Your task to perform on an android device: turn vacation reply on in the gmail app Image 0: 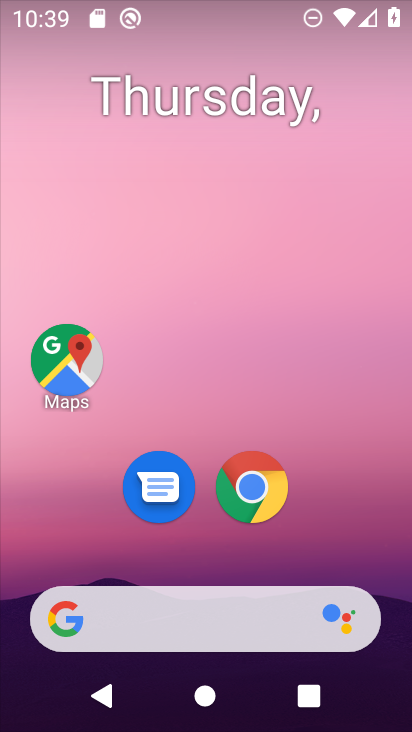
Step 0: drag from (313, 576) to (174, 195)
Your task to perform on an android device: turn vacation reply on in the gmail app Image 1: 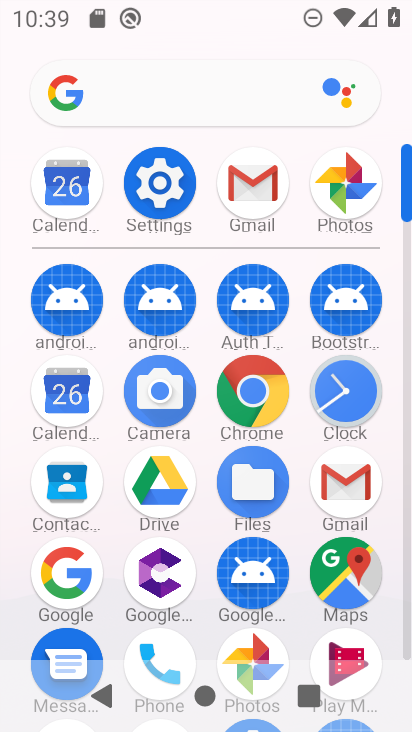
Step 1: click (256, 163)
Your task to perform on an android device: turn vacation reply on in the gmail app Image 2: 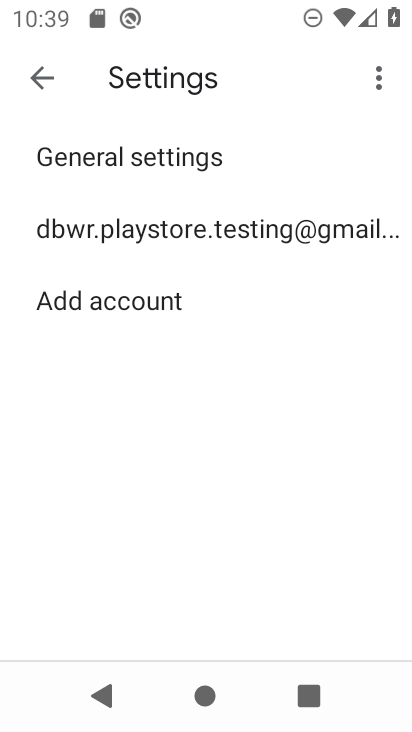
Step 2: click (42, 77)
Your task to perform on an android device: turn vacation reply on in the gmail app Image 3: 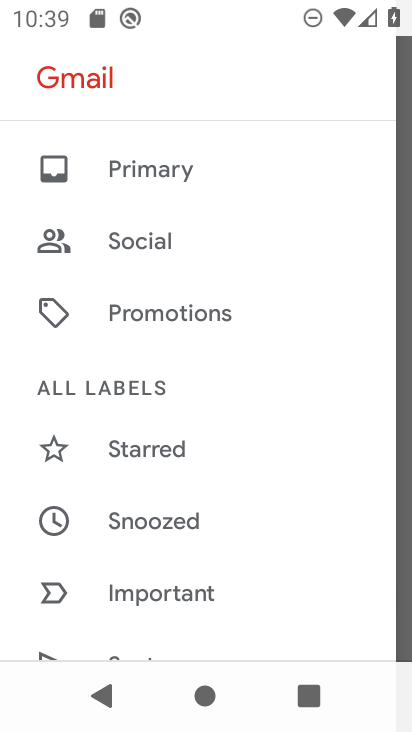
Step 3: drag from (151, 551) to (189, 56)
Your task to perform on an android device: turn vacation reply on in the gmail app Image 4: 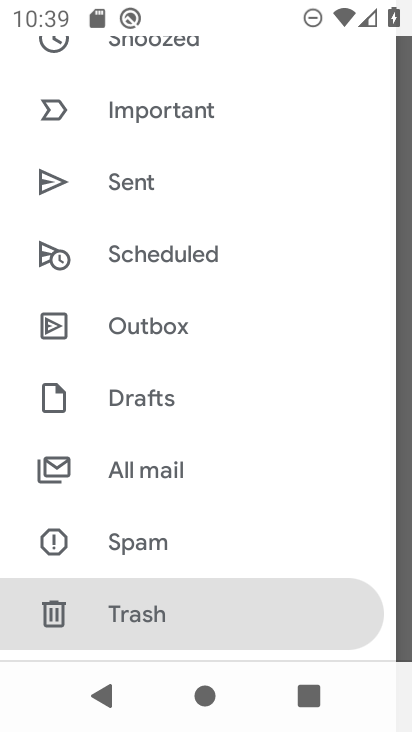
Step 4: drag from (186, 566) to (187, 309)
Your task to perform on an android device: turn vacation reply on in the gmail app Image 5: 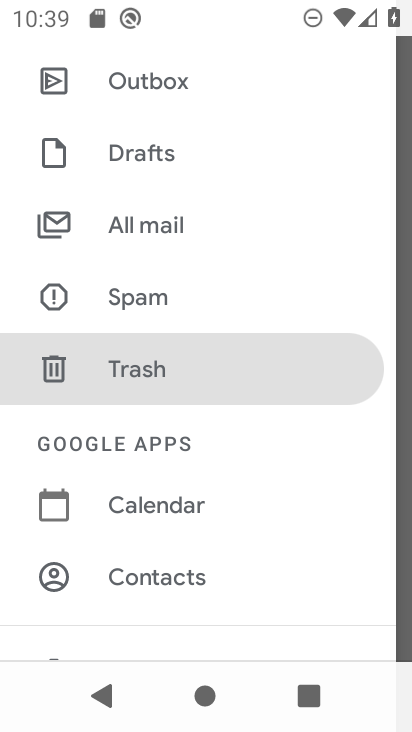
Step 5: drag from (184, 554) to (171, 348)
Your task to perform on an android device: turn vacation reply on in the gmail app Image 6: 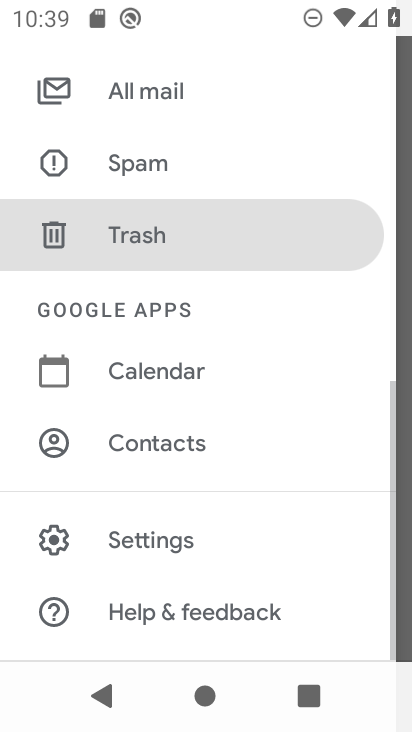
Step 6: click (135, 550)
Your task to perform on an android device: turn vacation reply on in the gmail app Image 7: 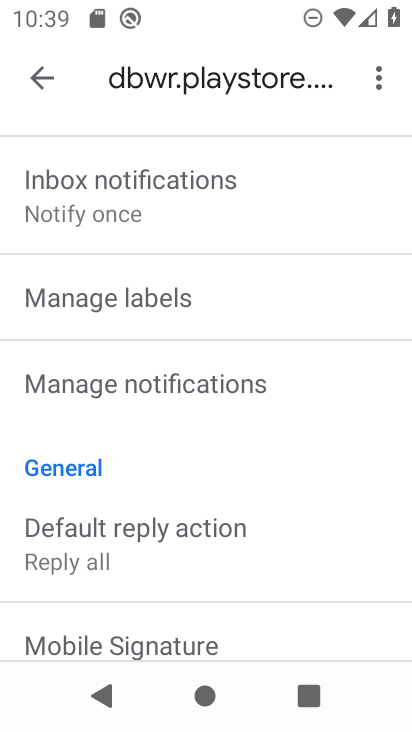
Step 7: drag from (156, 560) to (144, 221)
Your task to perform on an android device: turn vacation reply on in the gmail app Image 8: 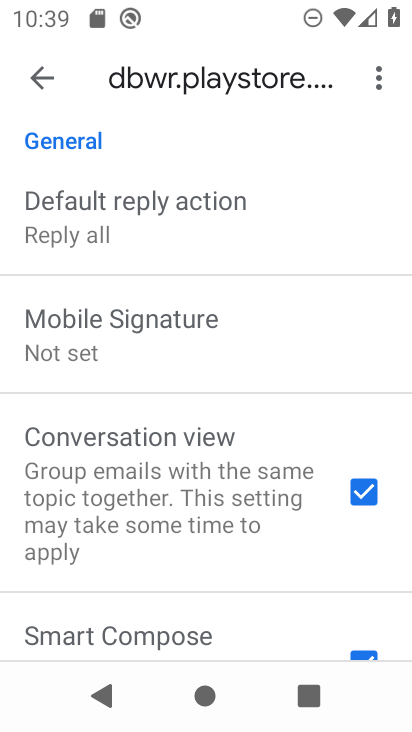
Step 8: drag from (106, 600) to (100, 336)
Your task to perform on an android device: turn vacation reply on in the gmail app Image 9: 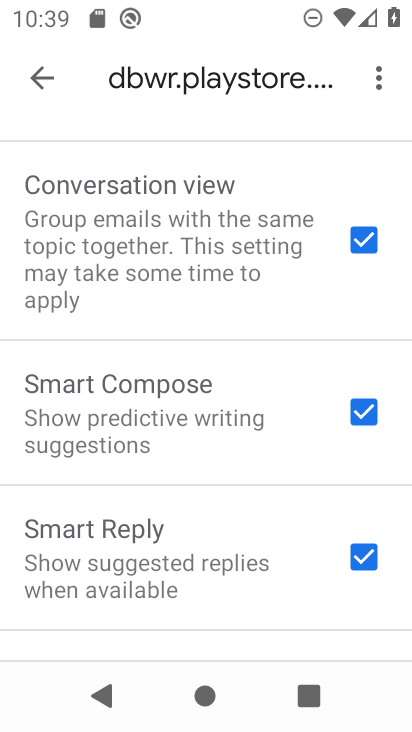
Step 9: drag from (91, 559) to (112, 278)
Your task to perform on an android device: turn vacation reply on in the gmail app Image 10: 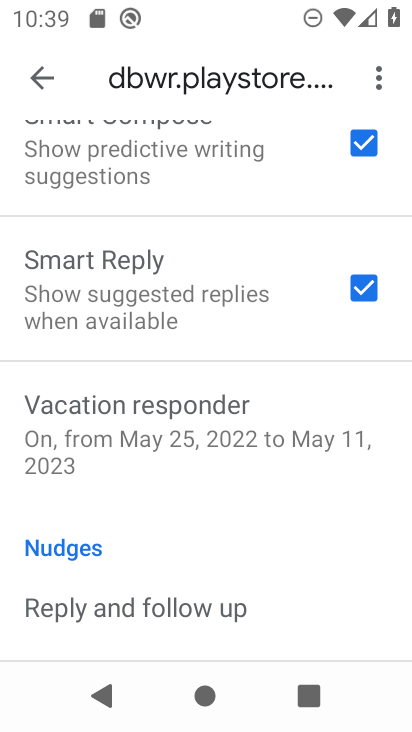
Step 10: click (148, 419)
Your task to perform on an android device: turn vacation reply on in the gmail app Image 11: 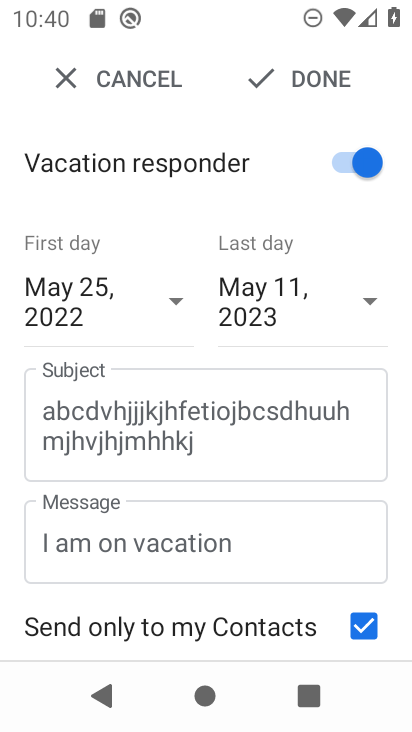
Step 11: task complete